Your task to perform on an android device: see tabs open on other devices in the chrome app Image 0: 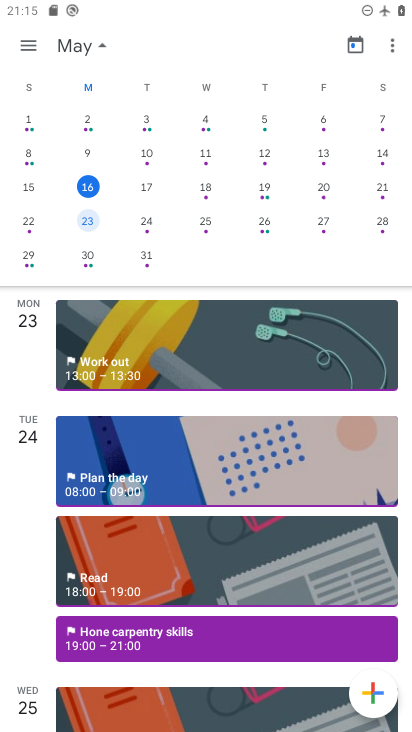
Step 0: press home button
Your task to perform on an android device: see tabs open on other devices in the chrome app Image 1: 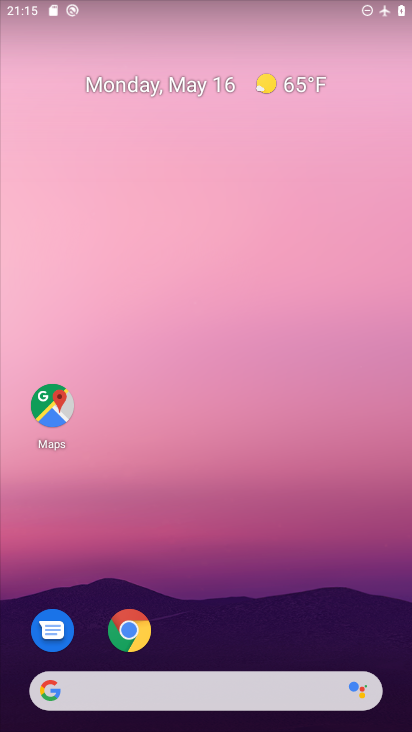
Step 1: click (121, 636)
Your task to perform on an android device: see tabs open on other devices in the chrome app Image 2: 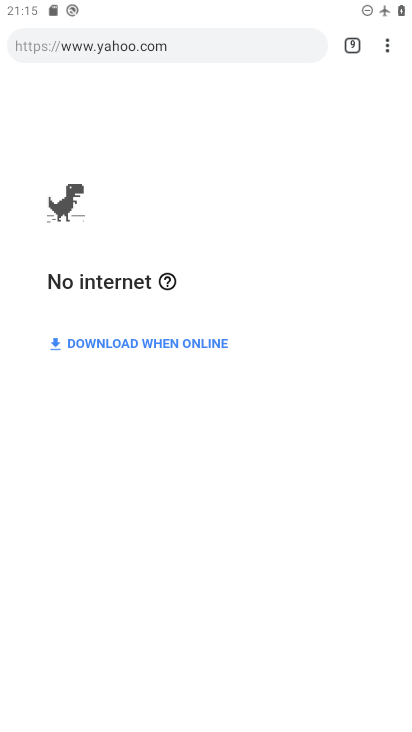
Step 2: click (381, 44)
Your task to perform on an android device: see tabs open on other devices in the chrome app Image 3: 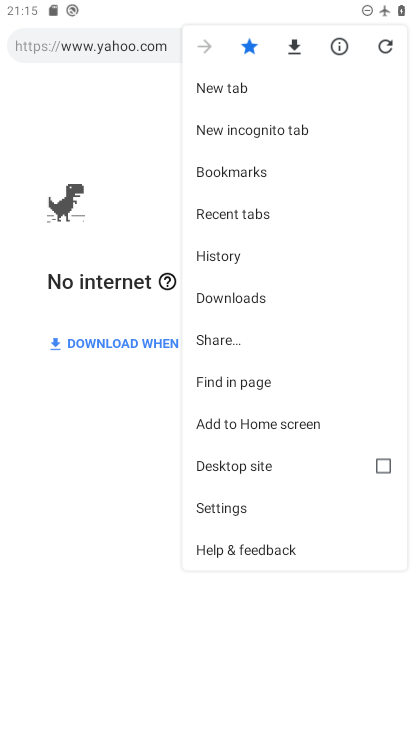
Step 3: click (258, 214)
Your task to perform on an android device: see tabs open on other devices in the chrome app Image 4: 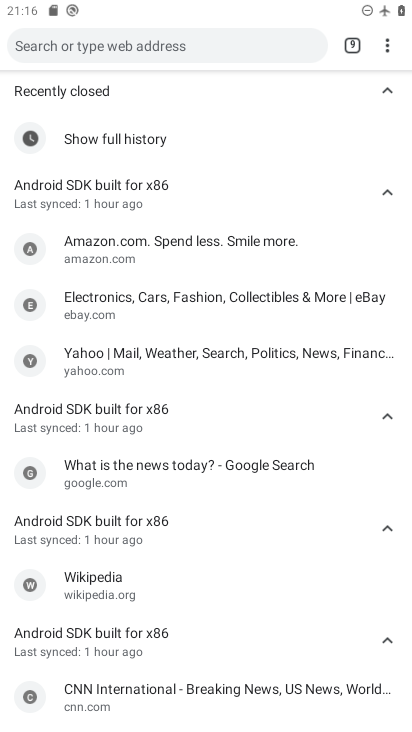
Step 4: task complete